Your task to perform on an android device: Open settings on Google Maps Image 0: 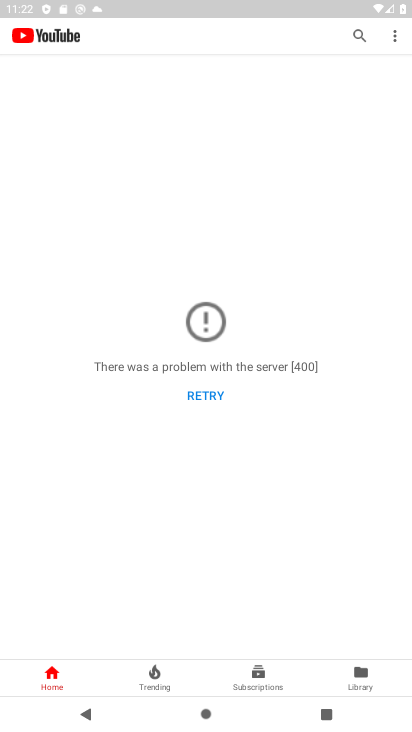
Step 0: press back button
Your task to perform on an android device: Open settings on Google Maps Image 1: 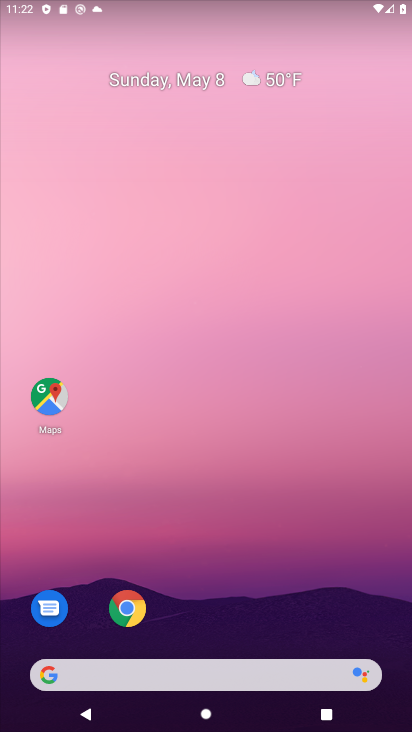
Step 1: drag from (228, 649) to (249, 442)
Your task to perform on an android device: Open settings on Google Maps Image 2: 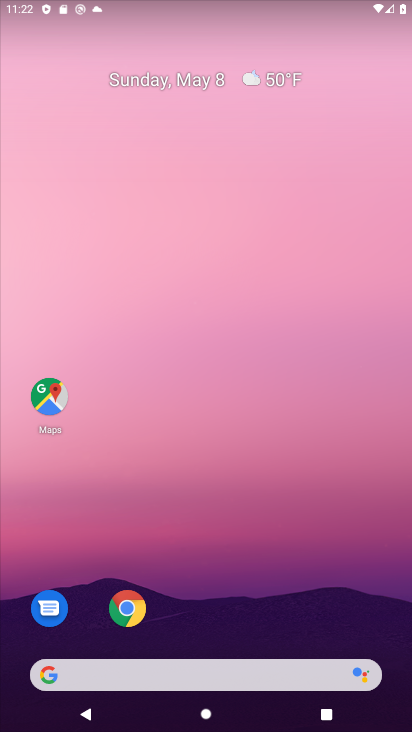
Step 2: click (57, 379)
Your task to perform on an android device: Open settings on Google Maps Image 3: 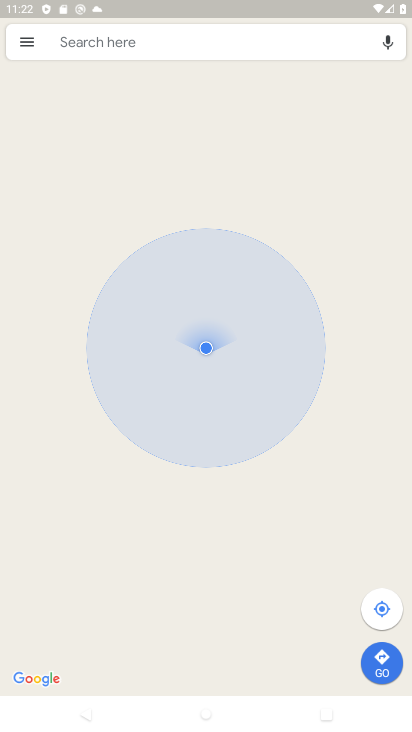
Step 3: click (30, 33)
Your task to perform on an android device: Open settings on Google Maps Image 4: 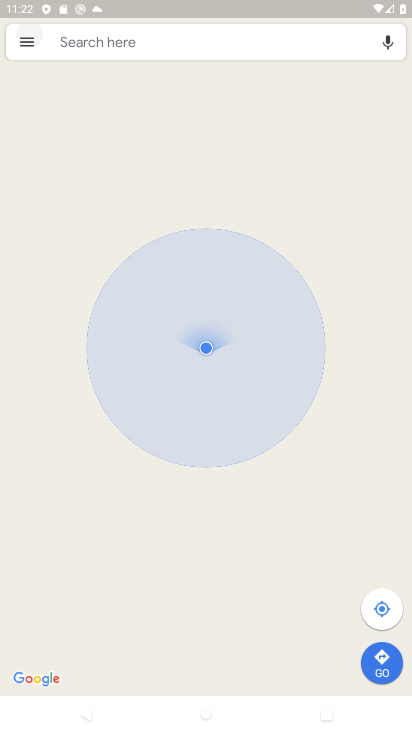
Step 4: click (29, 40)
Your task to perform on an android device: Open settings on Google Maps Image 5: 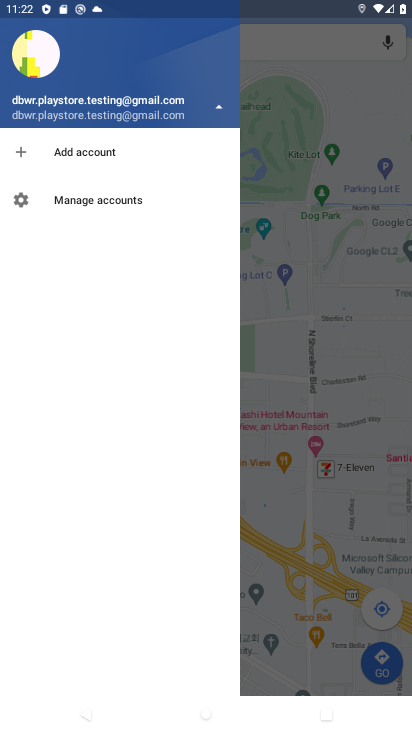
Step 5: click (222, 114)
Your task to perform on an android device: Open settings on Google Maps Image 6: 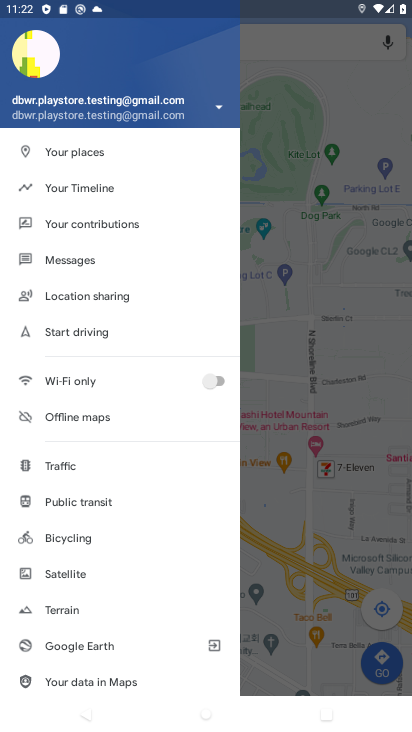
Step 6: drag from (99, 656) to (109, 419)
Your task to perform on an android device: Open settings on Google Maps Image 7: 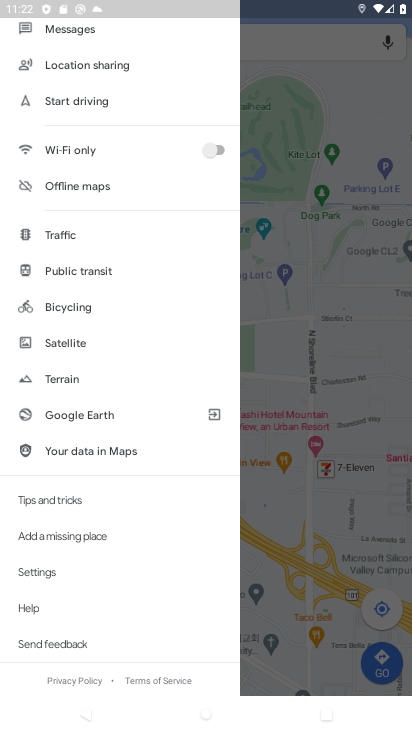
Step 7: click (76, 572)
Your task to perform on an android device: Open settings on Google Maps Image 8: 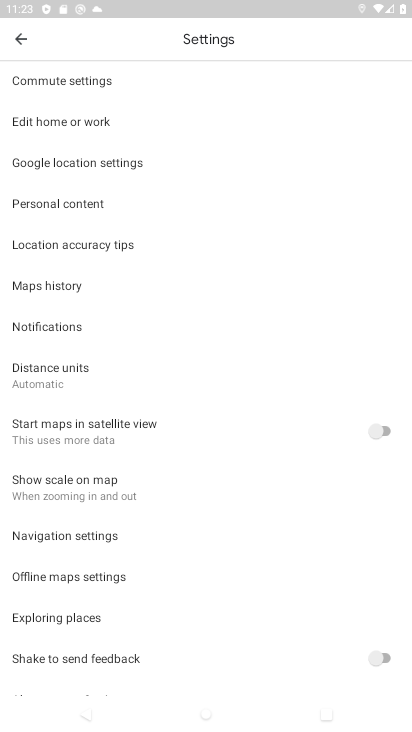
Step 8: task complete